Your task to perform on an android device: Add apple airpods to the cart on amazon.com, then select checkout. Image 0: 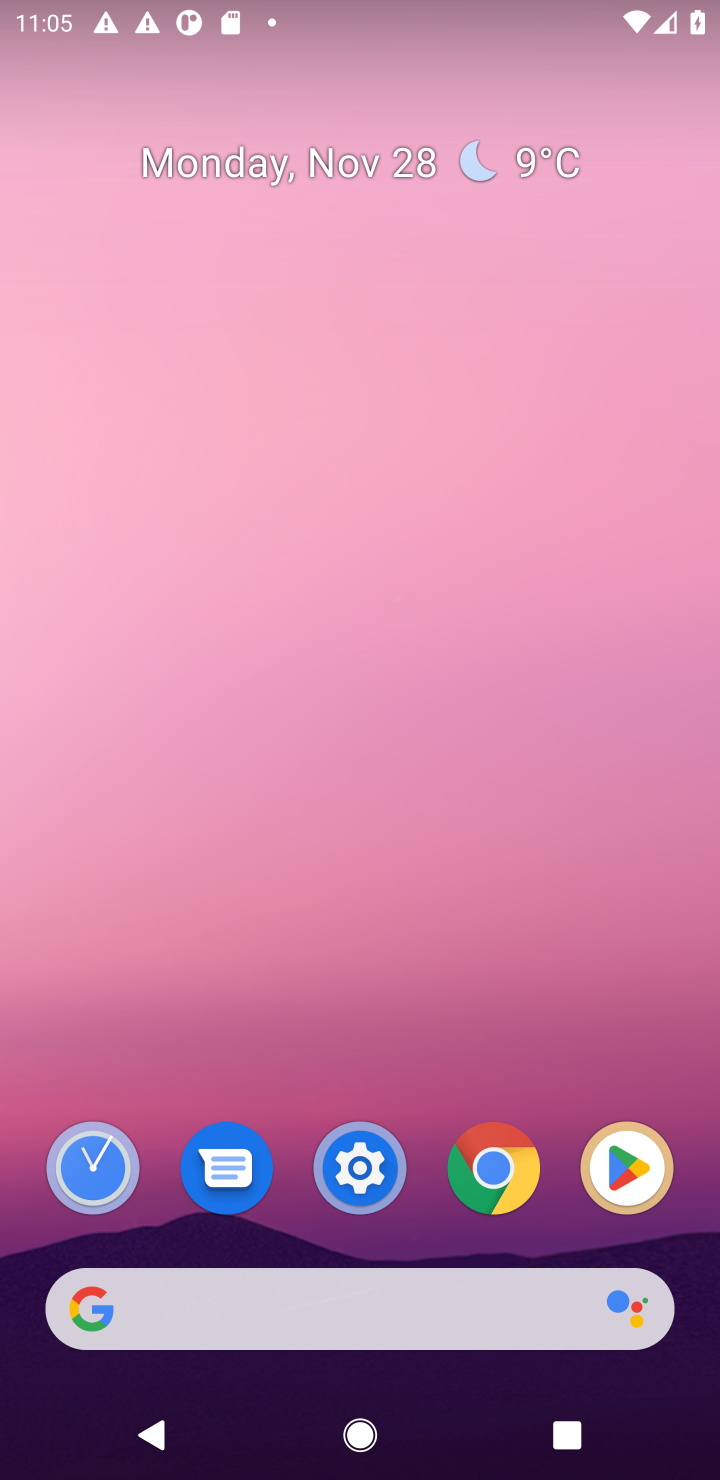
Step 0: click (366, 1320)
Your task to perform on an android device: Add apple airpods to the cart on amazon.com, then select checkout. Image 1: 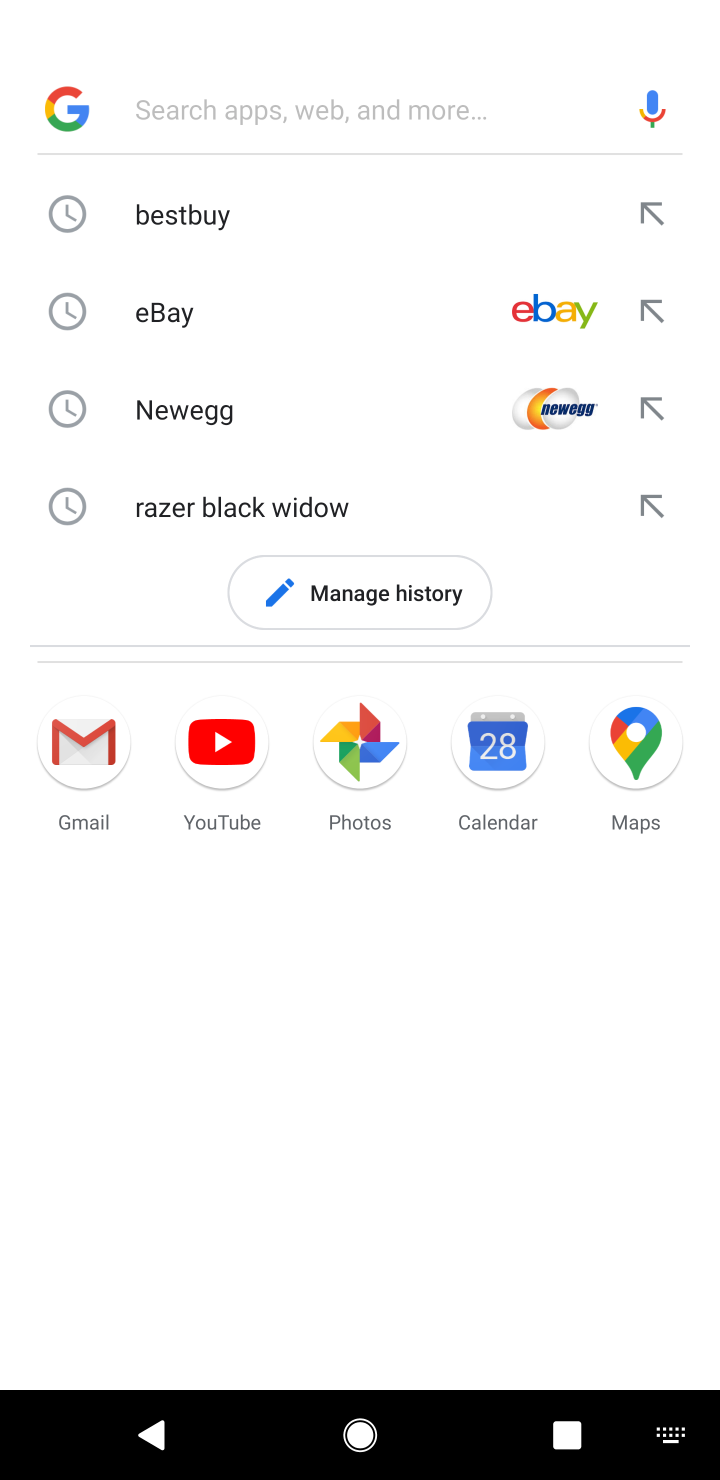
Step 1: type "amazon"
Your task to perform on an android device: Add apple airpods to the cart on amazon.com, then select checkout. Image 2: 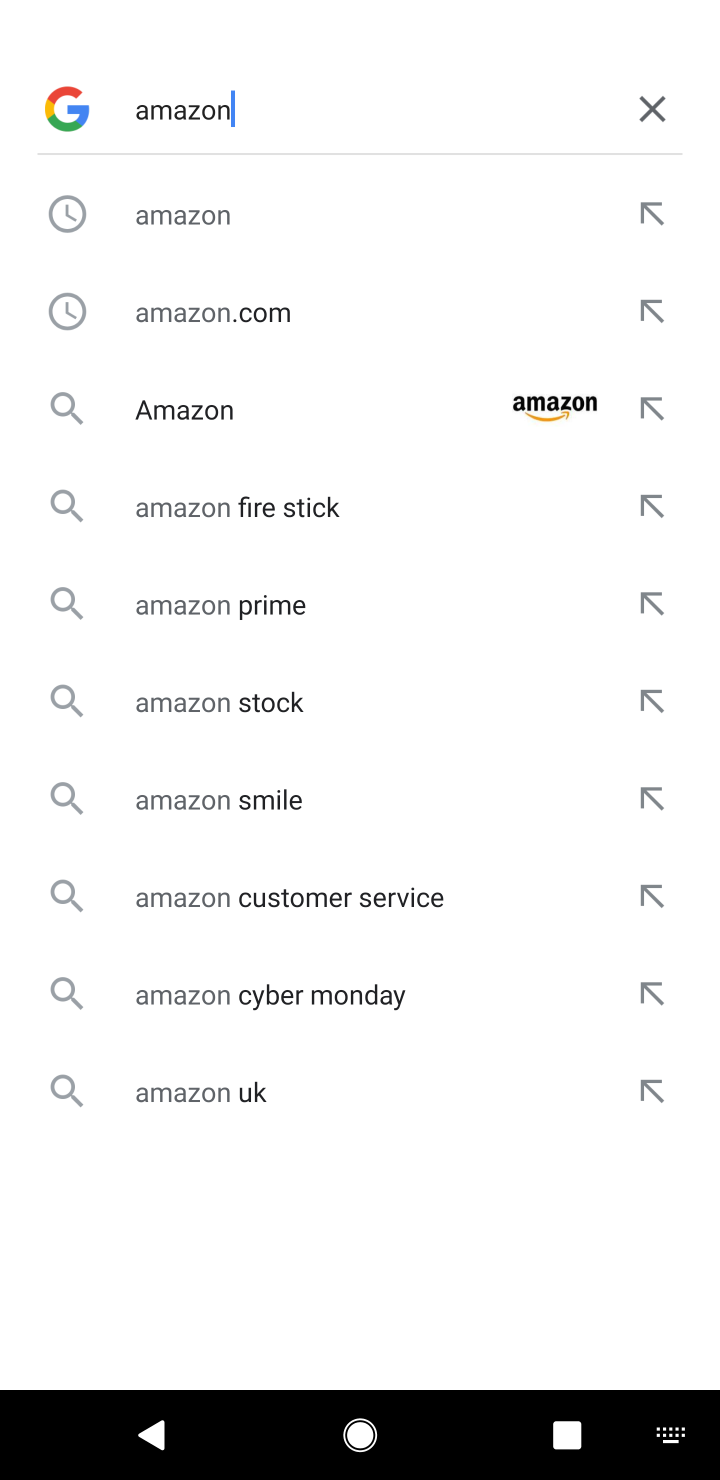
Step 2: click (195, 409)
Your task to perform on an android device: Add apple airpods to the cart on amazon.com, then select checkout. Image 3: 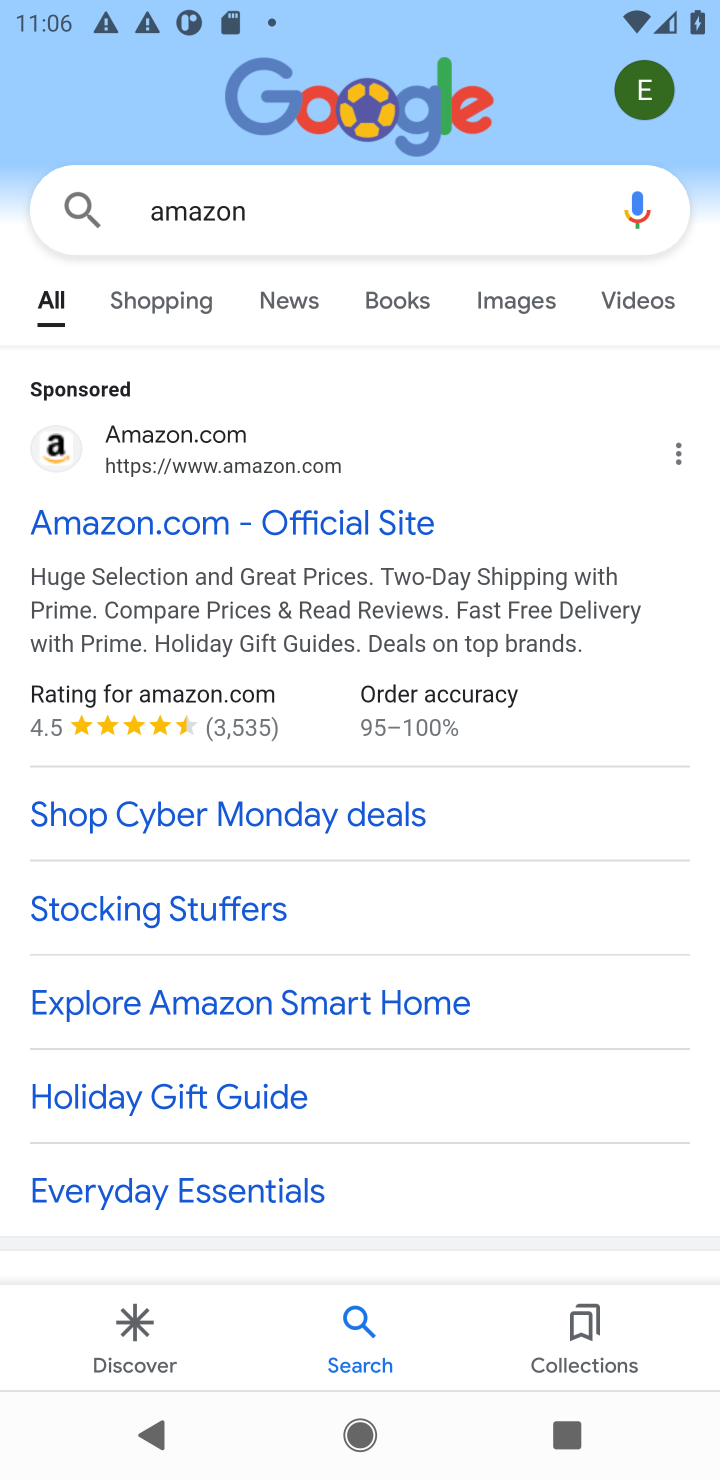
Step 3: click (116, 518)
Your task to perform on an android device: Add apple airpods to the cart on amazon.com, then select checkout. Image 4: 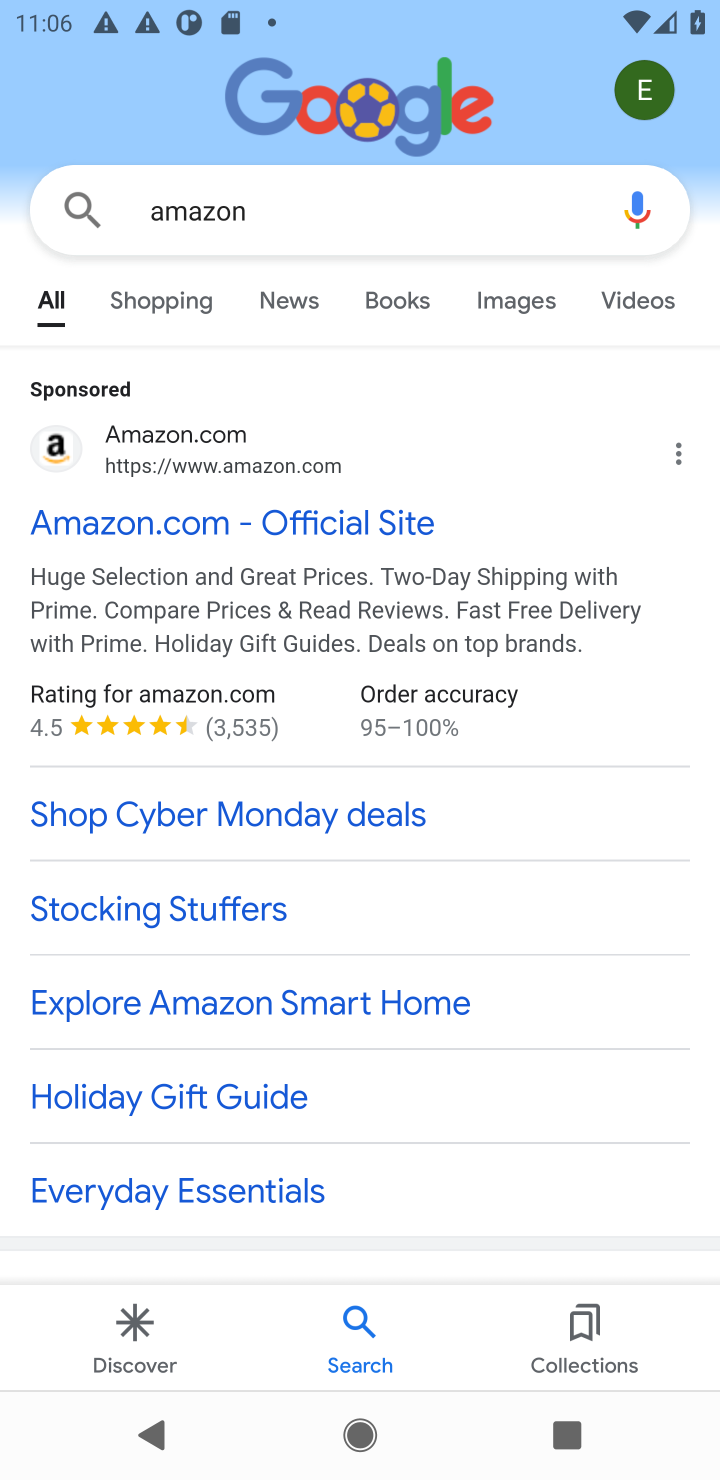
Step 4: task complete